Your task to perform on an android device: allow cookies in the chrome app Image 0: 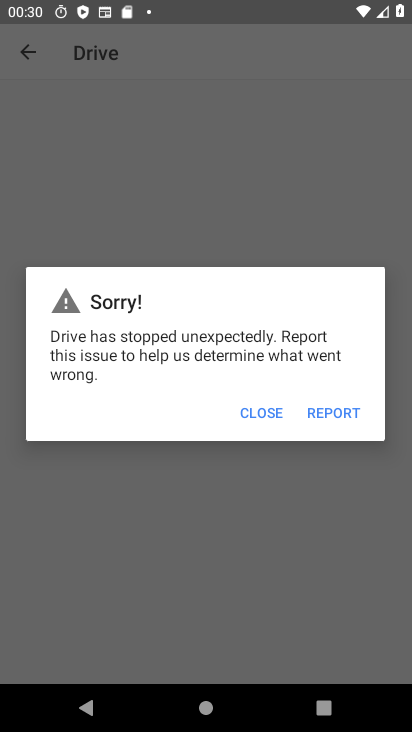
Step 0: press home button
Your task to perform on an android device: allow cookies in the chrome app Image 1: 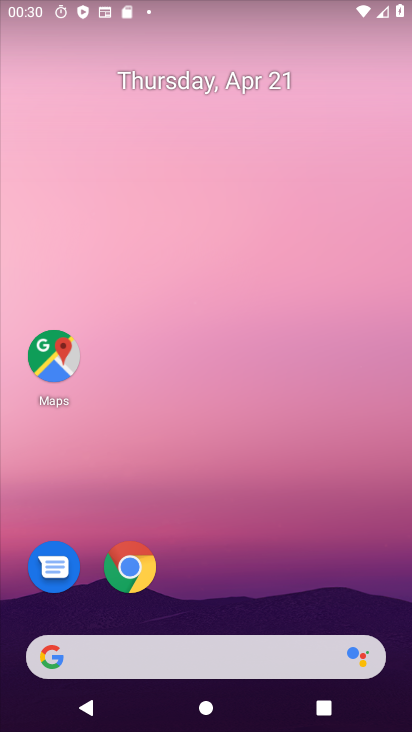
Step 1: drag from (216, 583) to (236, 270)
Your task to perform on an android device: allow cookies in the chrome app Image 2: 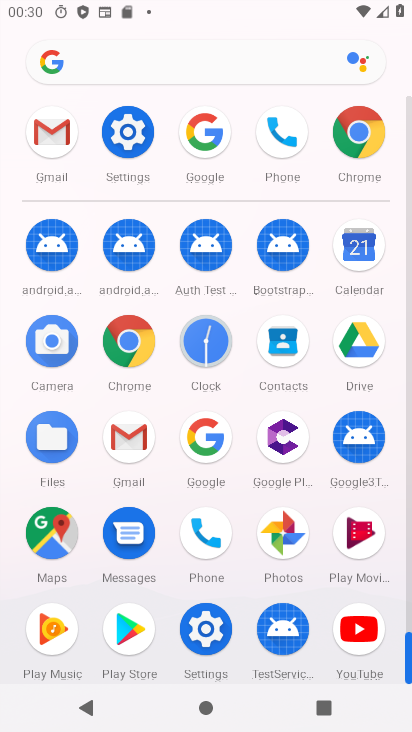
Step 2: click (346, 123)
Your task to perform on an android device: allow cookies in the chrome app Image 3: 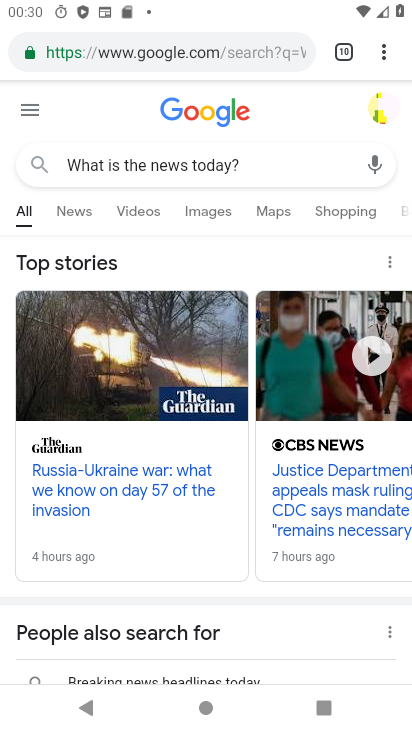
Step 3: click (384, 57)
Your task to perform on an android device: allow cookies in the chrome app Image 4: 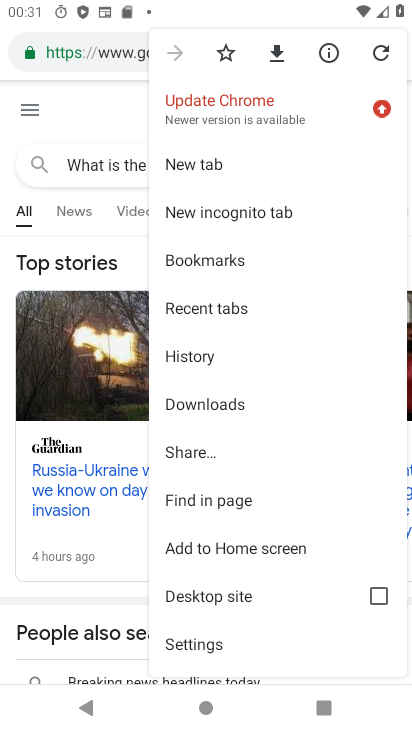
Step 4: drag from (260, 547) to (288, 248)
Your task to perform on an android device: allow cookies in the chrome app Image 5: 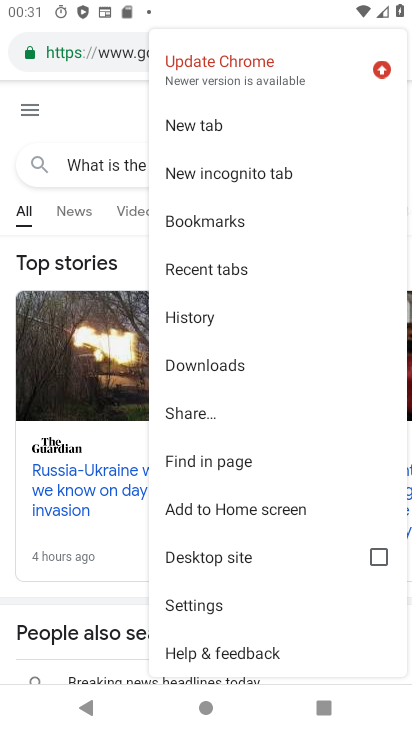
Step 5: click (213, 604)
Your task to perform on an android device: allow cookies in the chrome app Image 6: 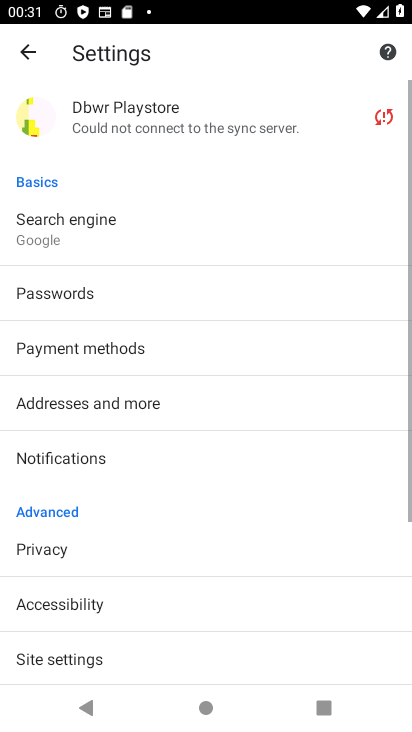
Step 6: drag from (188, 591) to (193, 288)
Your task to perform on an android device: allow cookies in the chrome app Image 7: 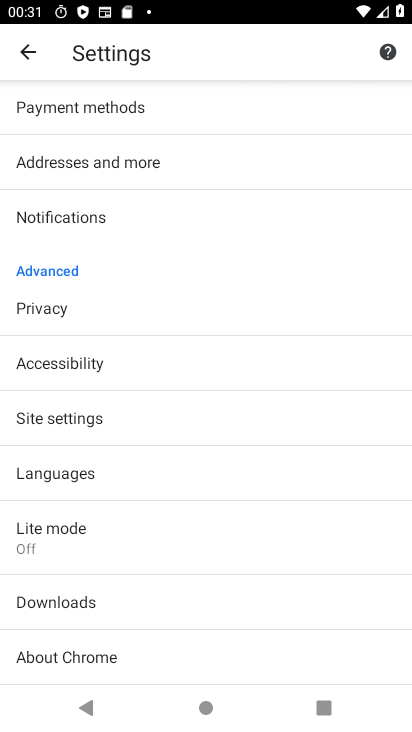
Step 7: click (80, 410)
Your task to perform on an android device: allow cookies in the chrome app Image 8: 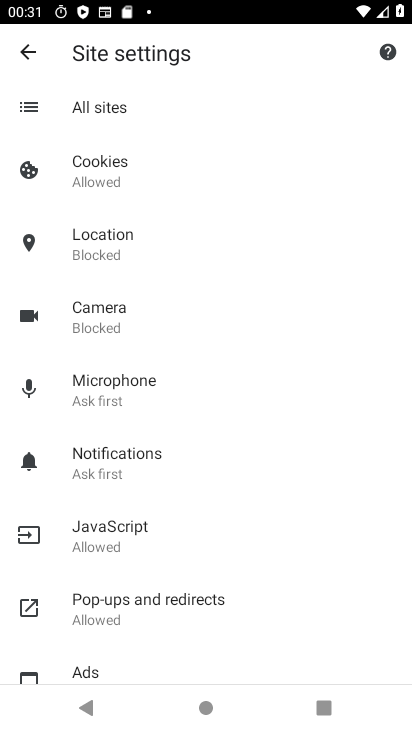
Step 8: click (155, 167)
Your task to perform on an android device: allow cookies in the chrome app Image 9: 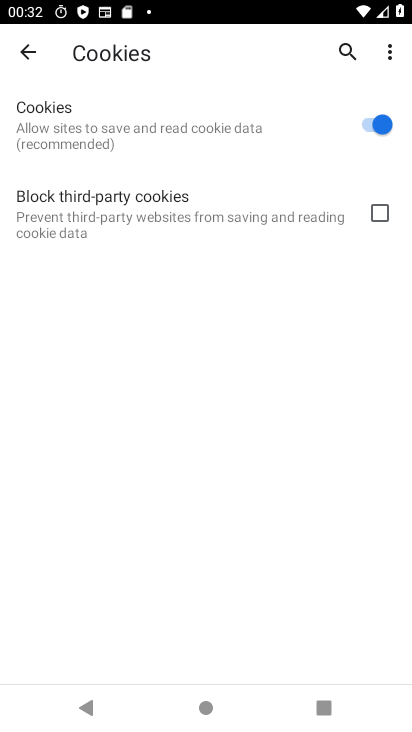
Step 9: task complete